Your task to perform on an android device: snooze an email in the gmail app Image 0: 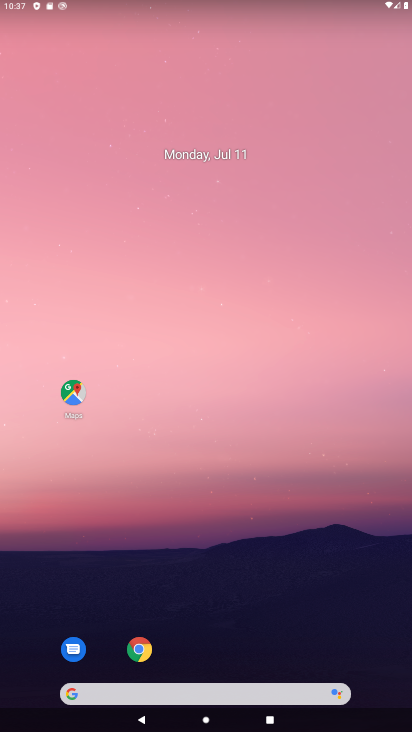
Step 0: drag from (214, 696) to (212, 184)
Your task to perform on an android device: snooze an email in the gmail app Image 1: 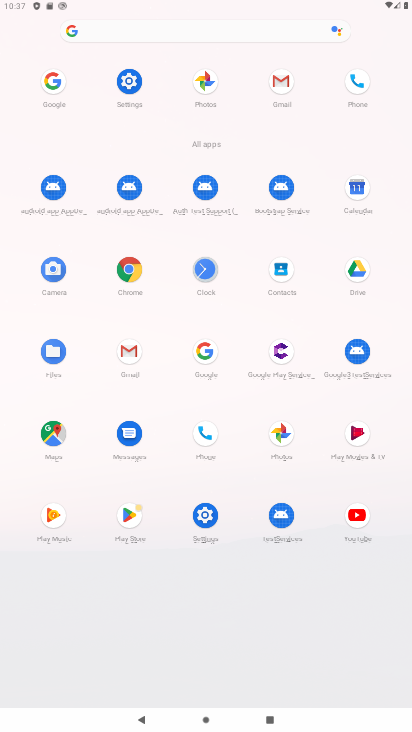
Step 1: click (128, 351)
Your task to perform on an android device: snooze an email in the gmail app Image 2: 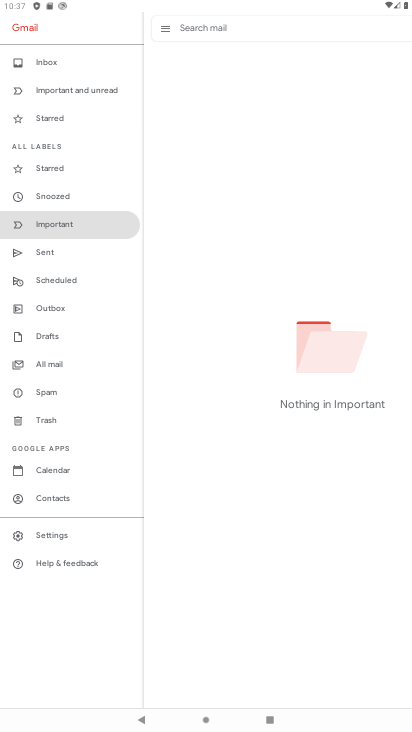
Step 2: click (49, 58)
Your task to perform on an android device: snooze an email in the gmail app Image 3: 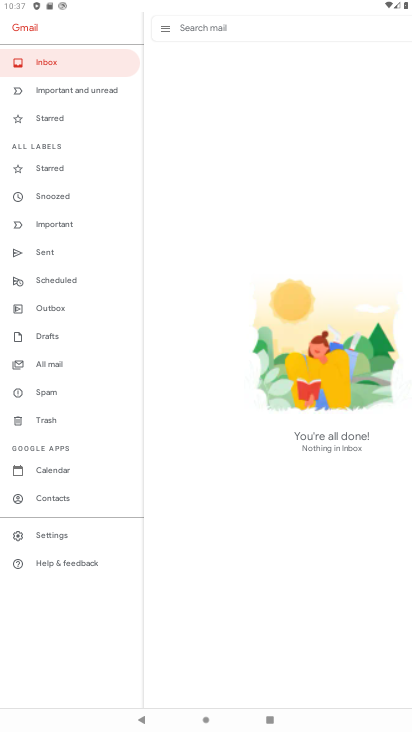
Step 3: click (54, 93)
Your task to perform on an android device: snooze an email in the gmail app Image 4: 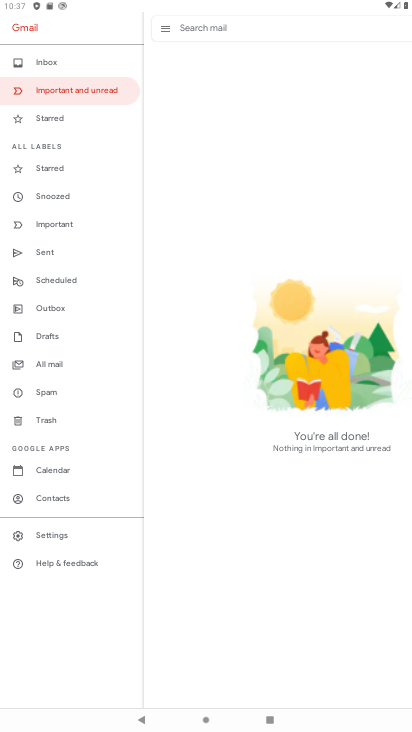
Step 4: click (59, 121)
Your task to perform on an android device: snooze an email in the gmail app Image 5: 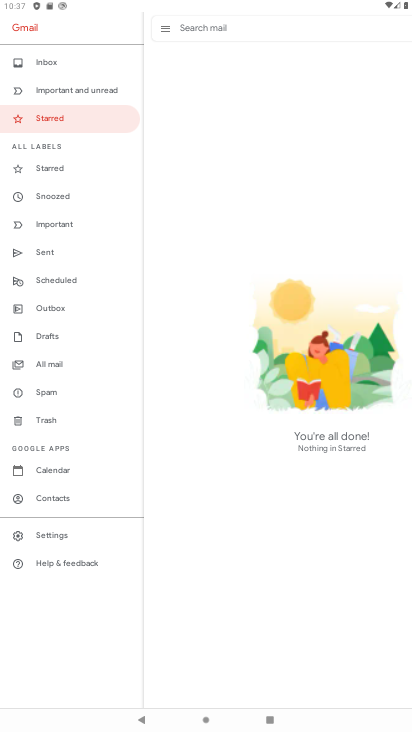
Step 5: click (71, 164)
Your task to perform on an android device: snooze an email in the gmail app Image 6: 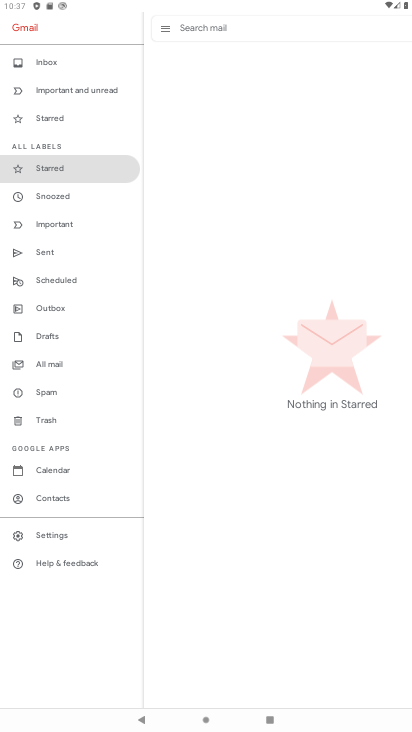
Step 6: click (68, 194)
Your task to perform on an android device: snooze an email in the gmail app Image 7: 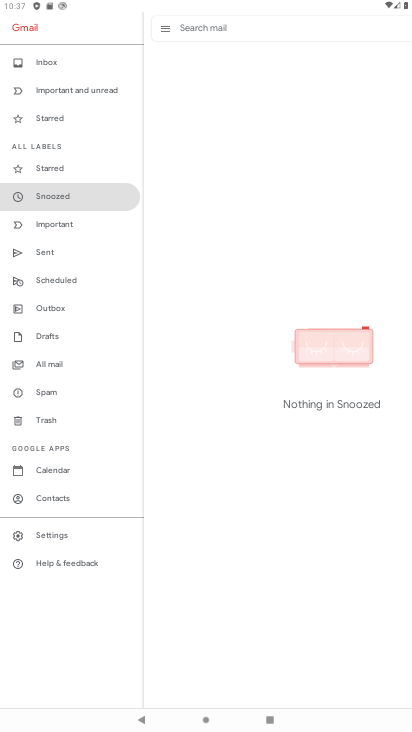
Step 7: click (70, 226)
Your task to perform on an android device: snooze an email in the gmail app Image 8: 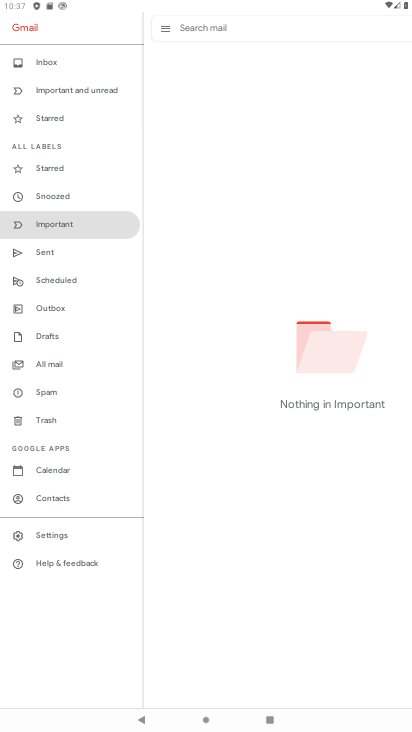
Step 8: click (71, 255)
Your task to perform on an android device: snooze an email in the gmail app Image 9: 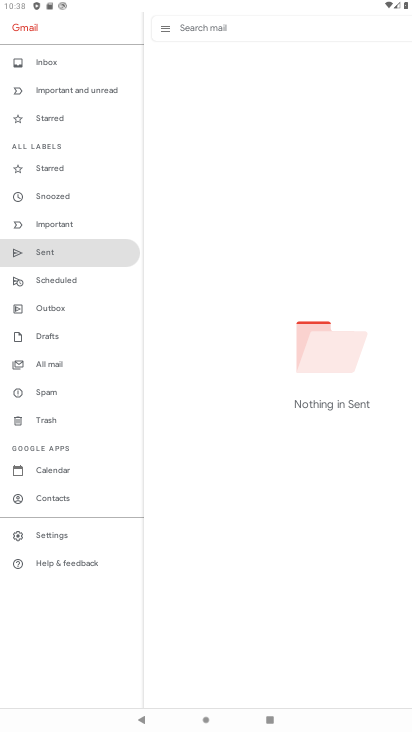
Step 9: click (81, 277)
Your task to perform on an android device: snooze an email in the gmail app Image 10: 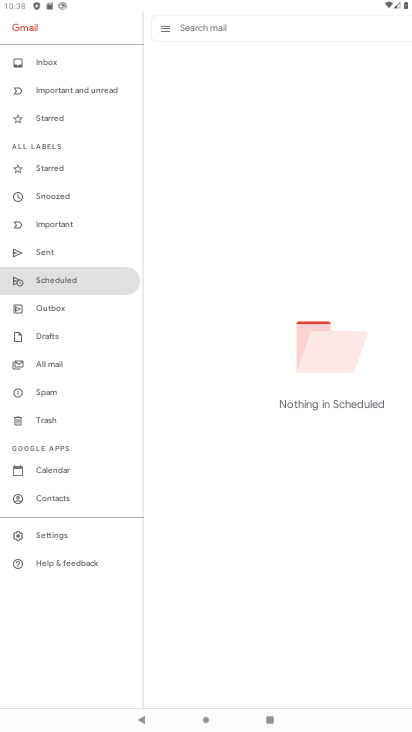
Step 10: click (81, 316)
Your task to perform on an android device: snooze an email in the gmail app Image 11: 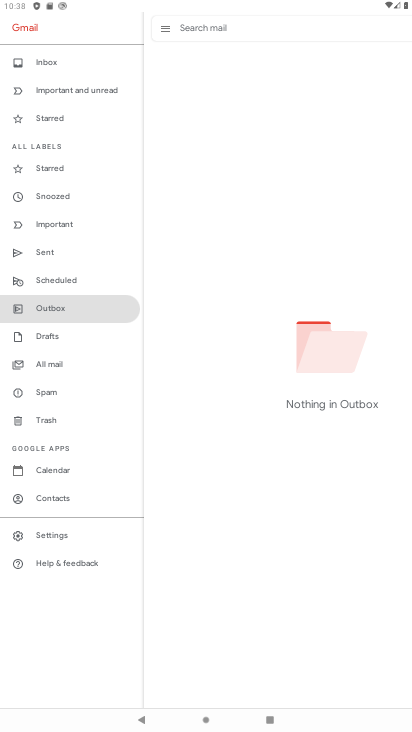
Step 11: click (69, 331)
Your task to perform on an android device: snooze an email in the gmail app Image 12: 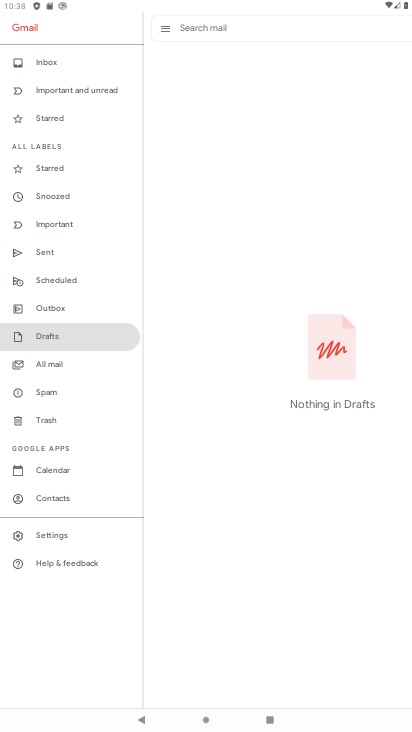
Step 12: click (68, 364)
Your task to perform on an android device: snooze an email in the gmail app Image 13: 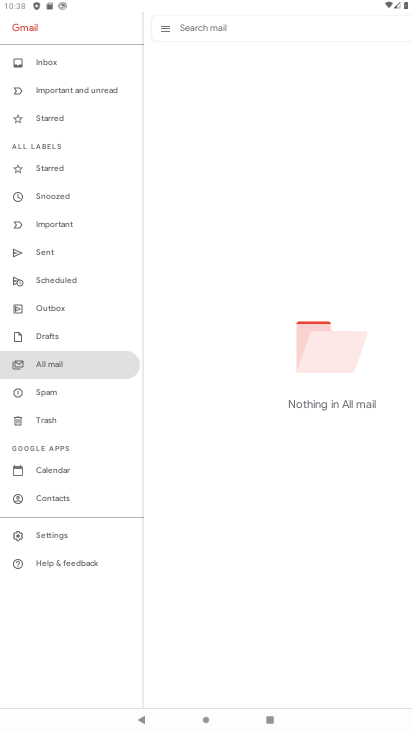
Step 13: click (67, 388)
Your task to perform on an android device: snooze an email in the gmail app Image 14: 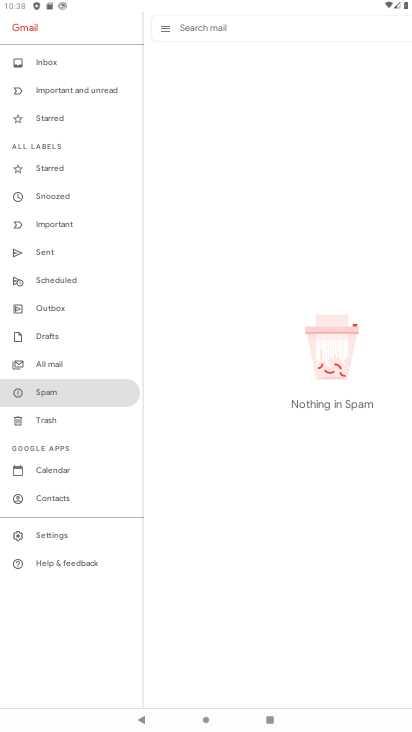
Step 14: click (73, 416)
Your task to perform on an android device: snooze an email in the gmail app Image 15: 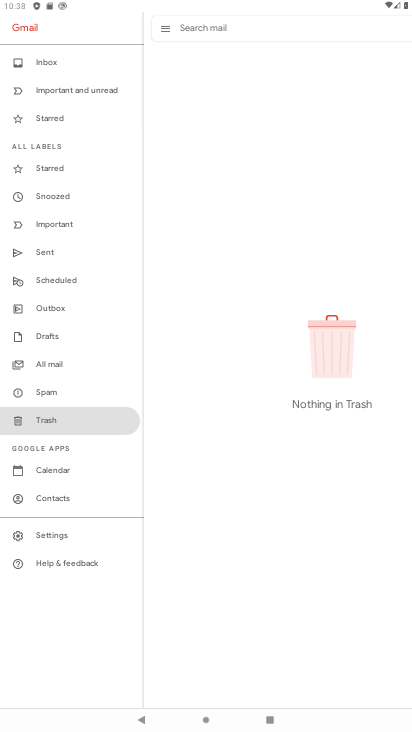
Step 15: click (63, 472)
Your task to perform on an android device: snooze an email in the gmail app Image 16: 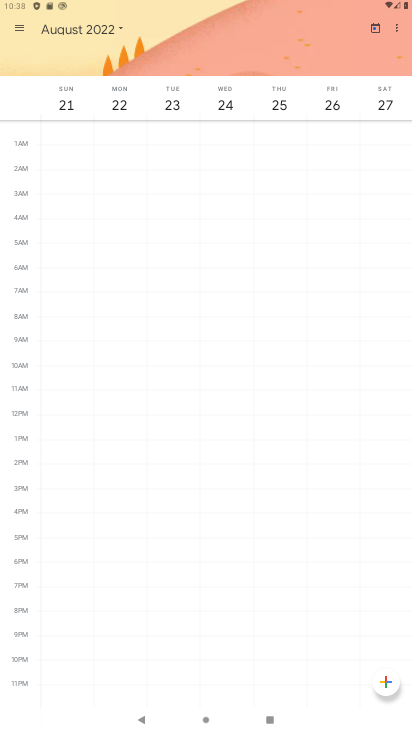
Step 16: task complete